Your task to perform on an android device: When is my next meeting? Image 0: 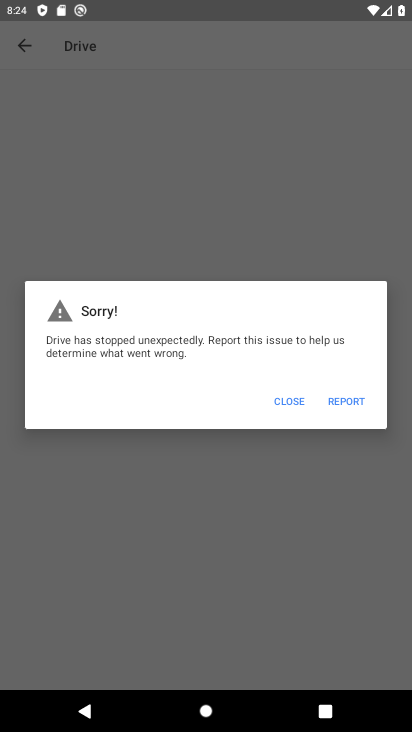
Step 0: press home button
Your task to perform on an android device: When is my next meeting? Image 1: 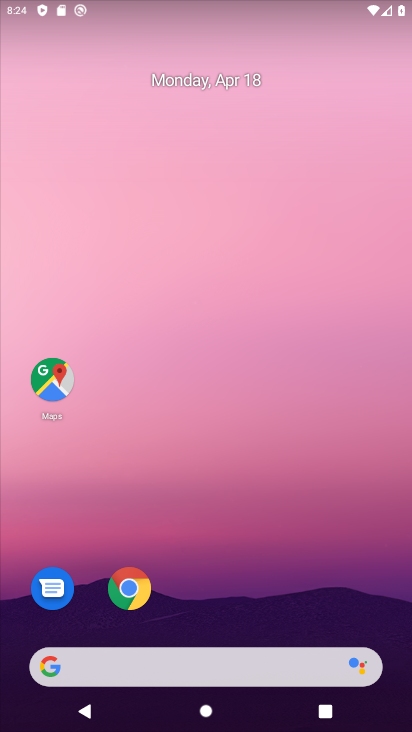
Step 1: drag from (209, 564) to (210, 56)
Your task to perform on an android device: When is my next meeting? Image 2: 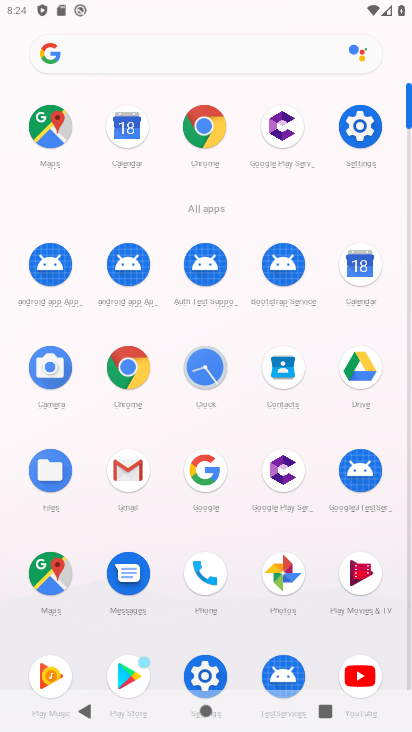
Step 2: click (354, 266)
Your task to perform on an android device: When is my next meeting? Image 3: 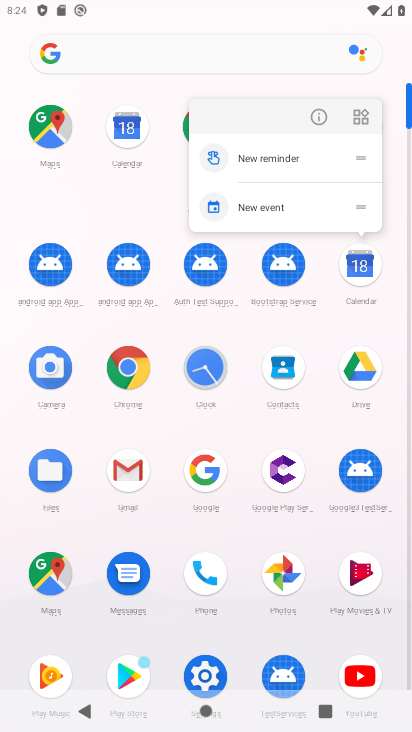
Step 3: click (363, 269)
Your task to perform on an android device: When is my next meeting? Image 4: 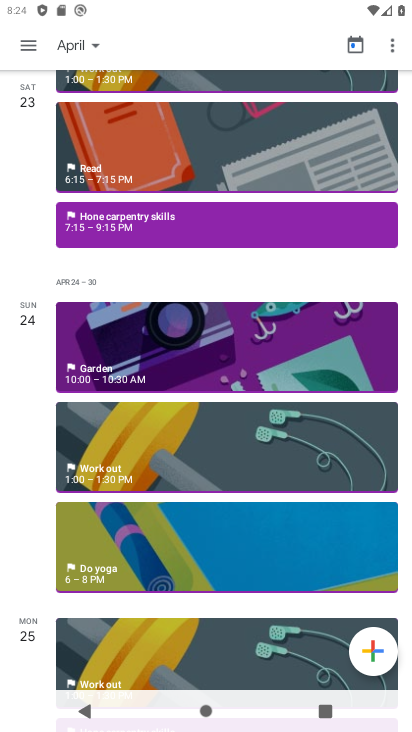
Step 4: click (86, 44)
Your task to perform on an android device: When is my next meeting? Image 5: 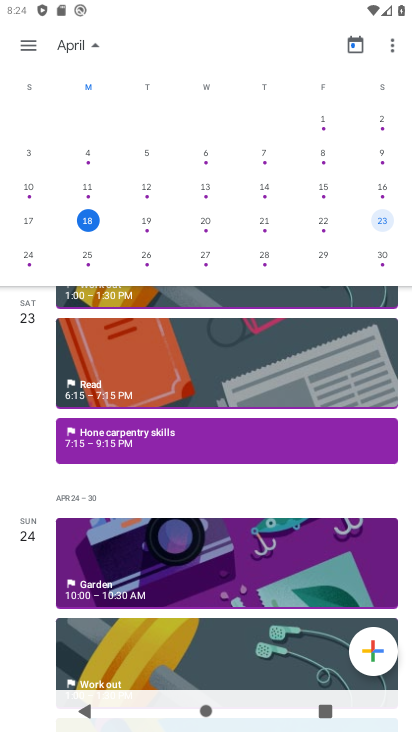
Step 5: click (33, 46)
Your task to perform on an android device: When is my next meeting? Image 6: 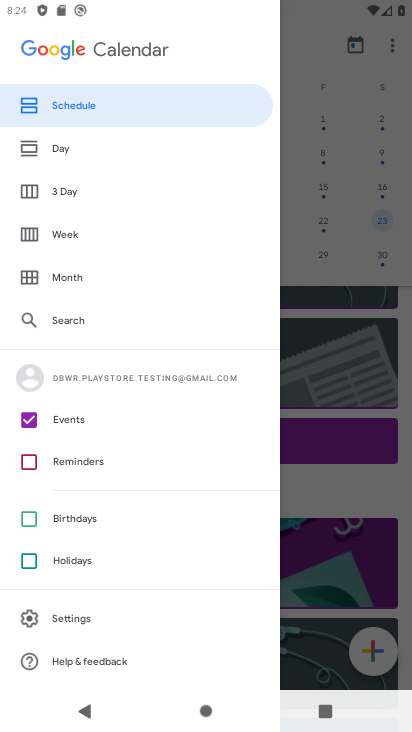
Step 6: click (311, 218)
Your task to perform on an android device: When is my next meeting? Image 7: 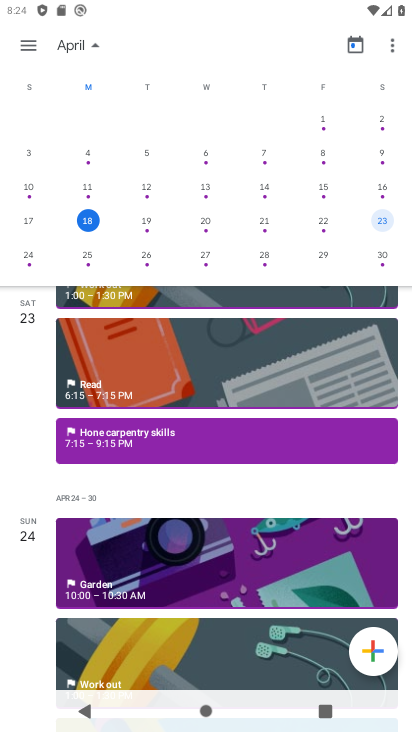
Step 7: click (148, 222)
Your task to perform on an android device: When is my next meeting? Image 8: 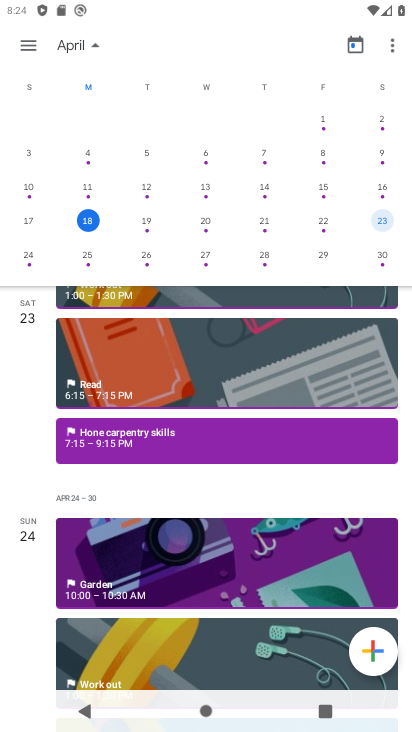
Step 8: click (147, 220)
Your task to perform on an android device: When is my next meeting? Image 9: 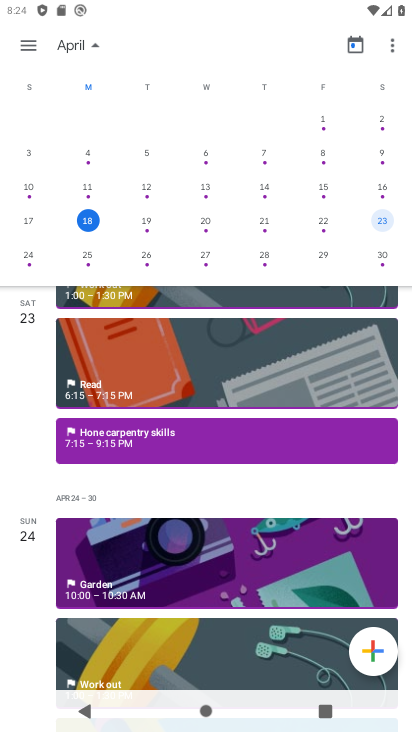
Step 9: click (147, 217)
Your task to perform on an android device: When is my next meeting? Image 10: 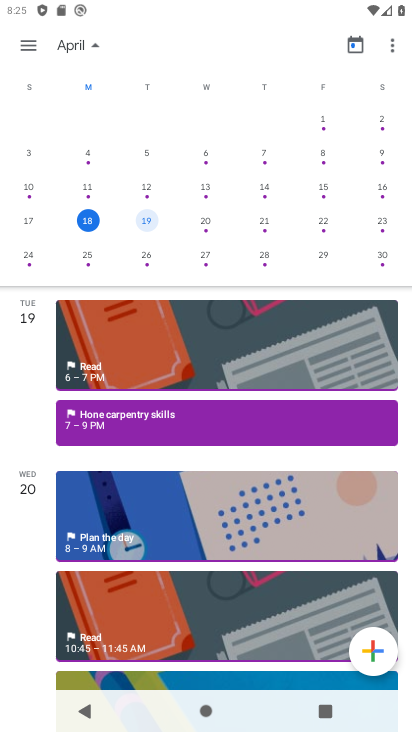
Step 10: drag from (172, 381) to (162, 607)
Your task to perform on an android device: When is my next meeting? Image 11: 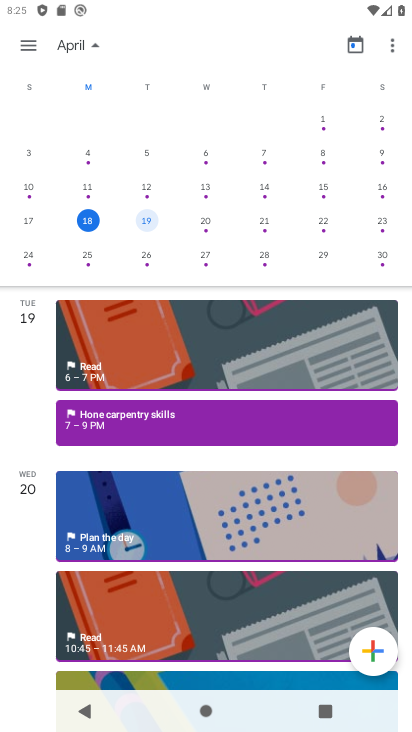
Step 11: click (92, 222)
Your task to perform on an android device: When is my next meeting? Image 12: 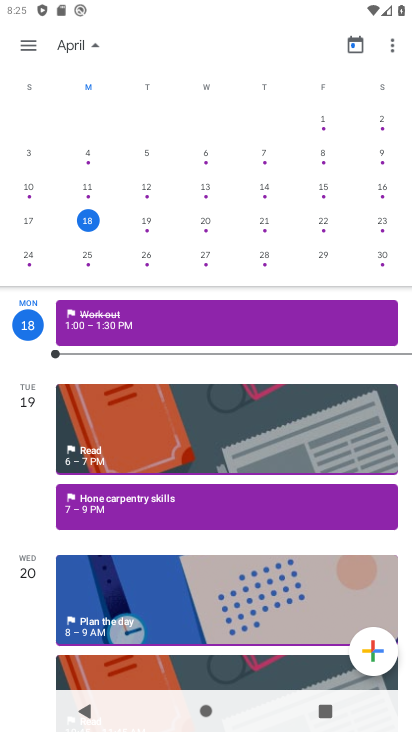
Step 12: task complete